Your task to perform on an android device: set an alarm Image 0: 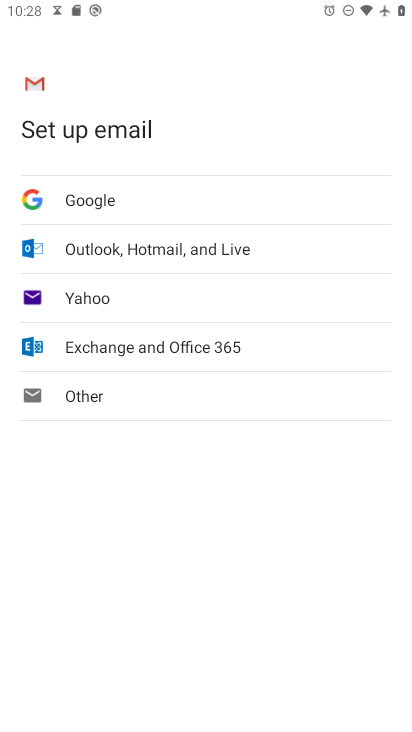
Step 0: press home button
Your task to perform on an android device: set an alarm Image 1: 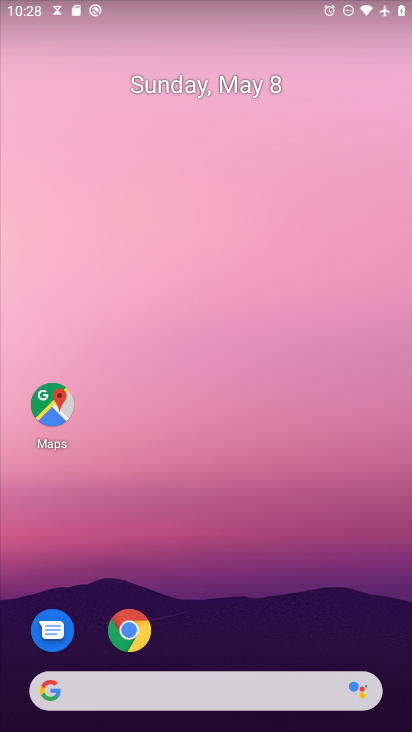
Step 1: drag from (173, 697) to (356, 156)
Your task to perform on an android device: set an alarm Image 2: 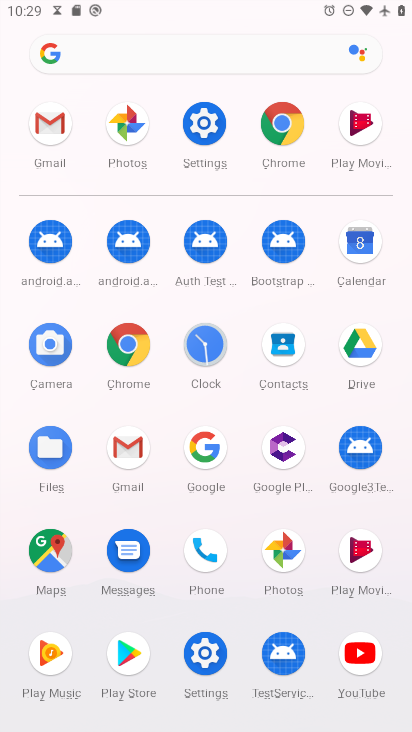
Step 2: click (206, 351)
Your task to perform on an android device: set an alarm Image 3: 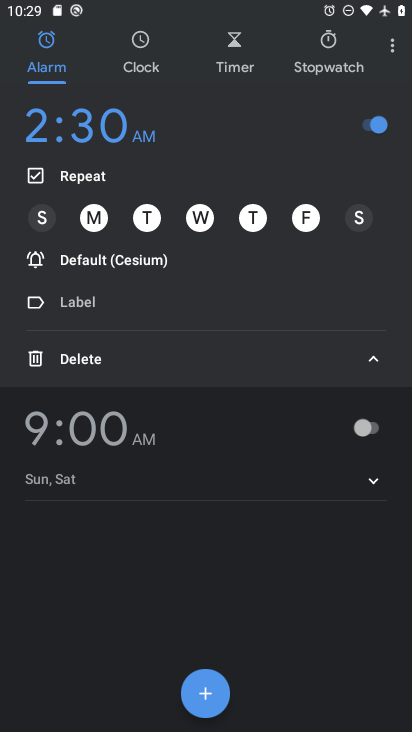
Step 3: click (124, 456)
Your task to perform on an android device: set an alarm Image 4: 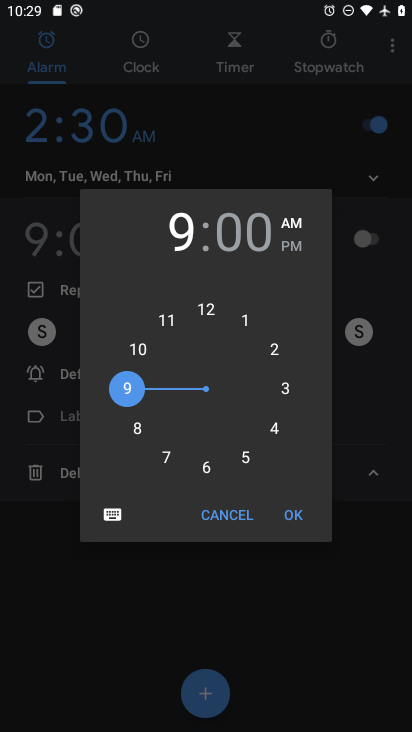
Step 4: click (146, 428)
Your task to perform on an android device: set an alarm Image 5: 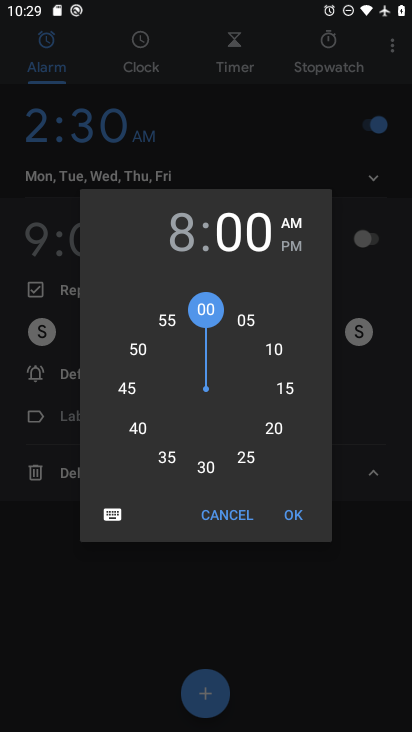
Step 5: click (292, 524)
Your task to perform on an android device: set an alarm Image 6: 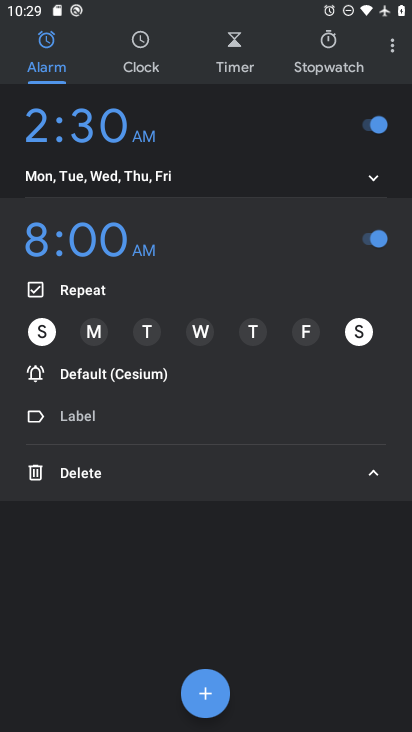
Step 6: task complete